Your task to perform on an android device: Open Google Chrome and click the shortcut for Amazon.com Image 0: 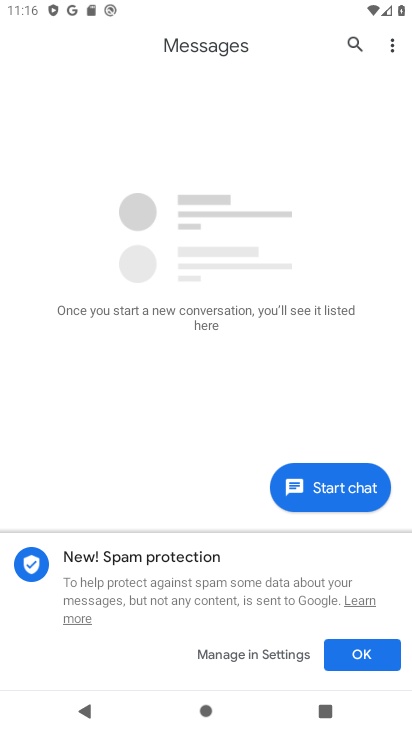
Step 0: press home button
Your task to perform on an android device: Open Google Chrome and click the shortcut for Amazon.com Image 1: 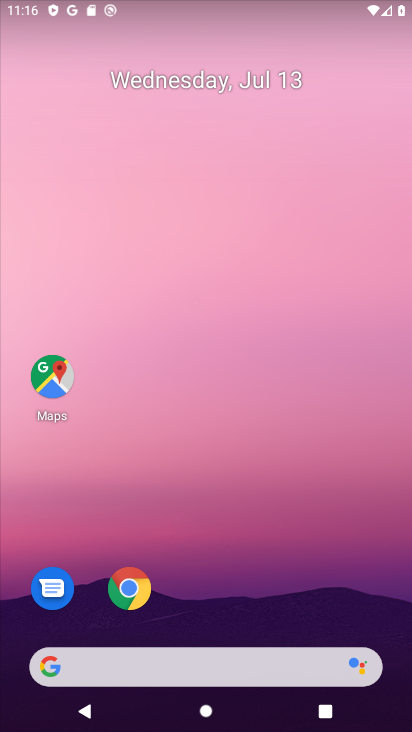
Step 1: drag from (222, 598) to (223, 95)
Your task to perform on an android device: Open Google Chrome and click the shortcut for Amazon.com Image 2: 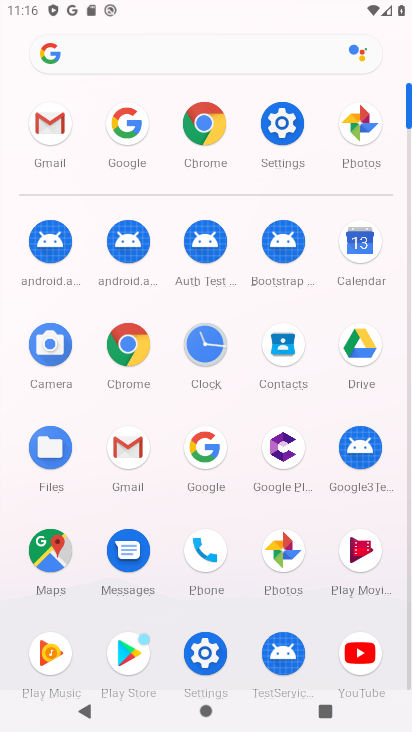
Step 2: click (205, 121)
Your task to perform on an android device: Open Google Chrome and click the shortcut for Amazon.com Image 3: 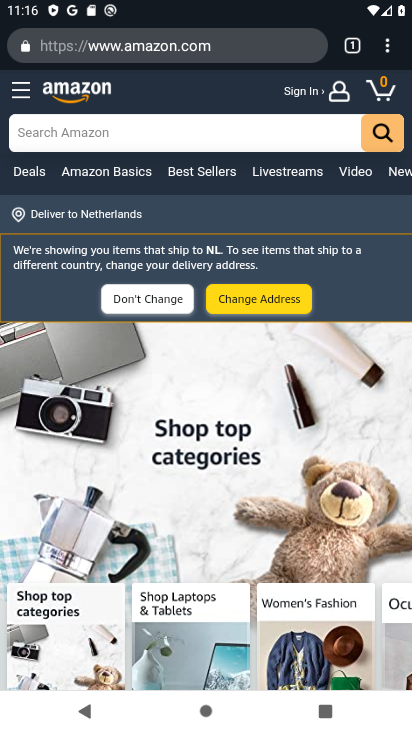
Step 3: task complete